Your task to perform on an android device: snooze an email in the gmail app Image 0: 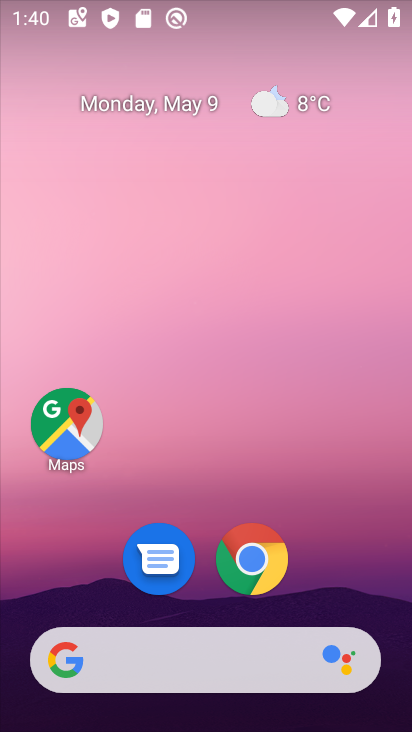
Step 0: drag from (323, 529) to (337, 32)
Your task to perform on an android device: snooze an email in the gmail app Image 1: 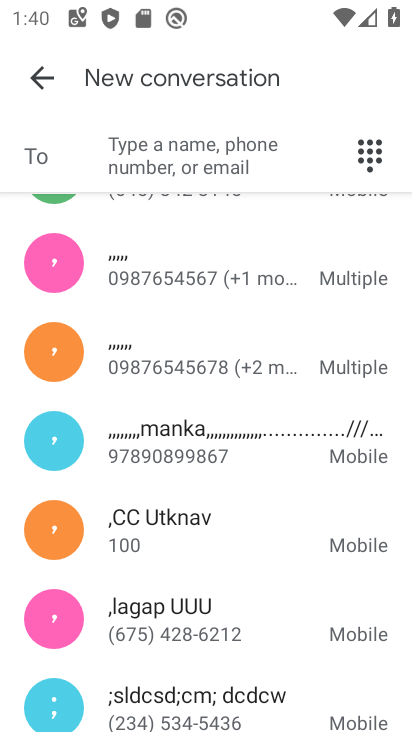
Step 1: press home button
Your task to perform on an android device: snooze an email in the gmail app Image 2: 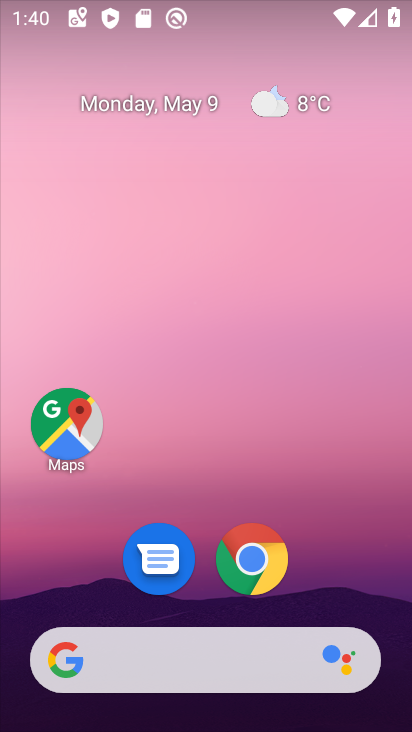
Step 2: drag from (326, 522) to (206, 91)
Your task to perform on an android device: snooze an email in the gmail app Image 3: 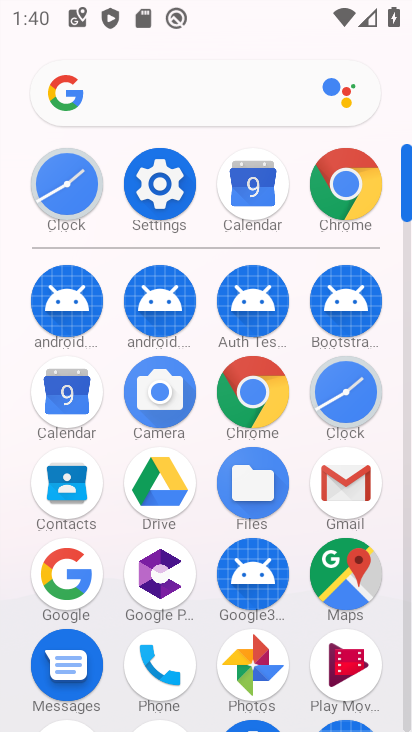
Step 3: click (349, 480)
Your task to perform on an android device: snooze an email in the gmail app Image 4: 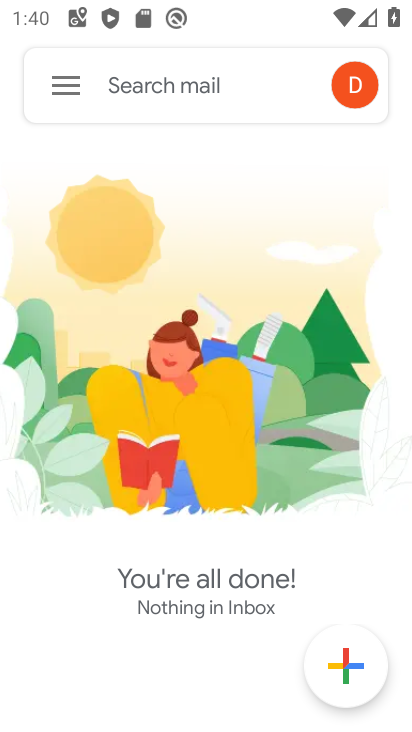
Step 4: click (68, 81)
Your task to perform on an android device: snooze an email in the gmail app Image 5: 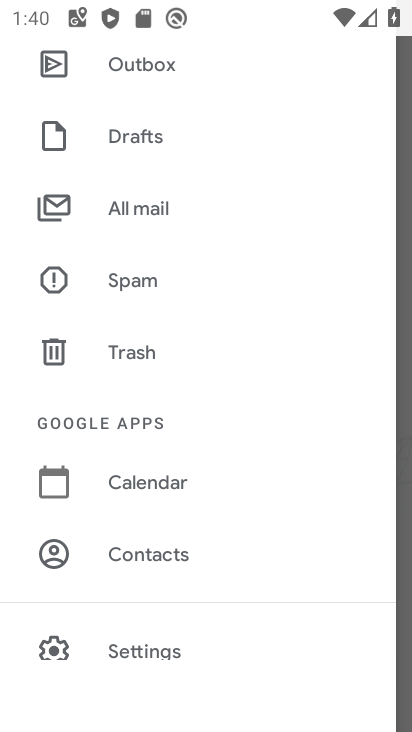
Step 5: drag from (205, 306) to (284, 714)
Your task to perform on an android device: snooze an email in the gmail app Image 6: 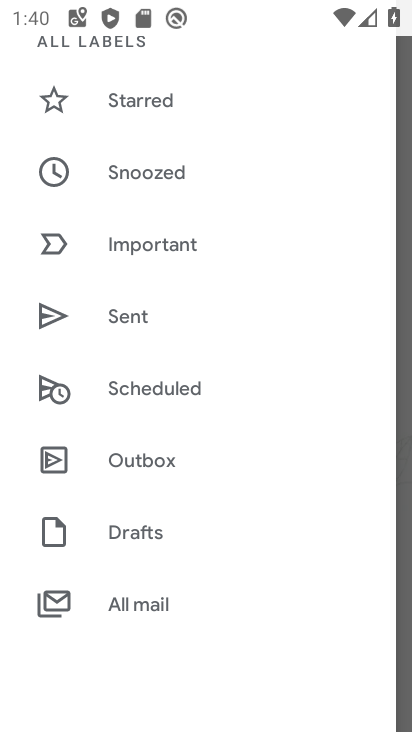
Step 6: click (154, 170)
Your task to perform on an android device: snooze an email in the gmail app Image 7: 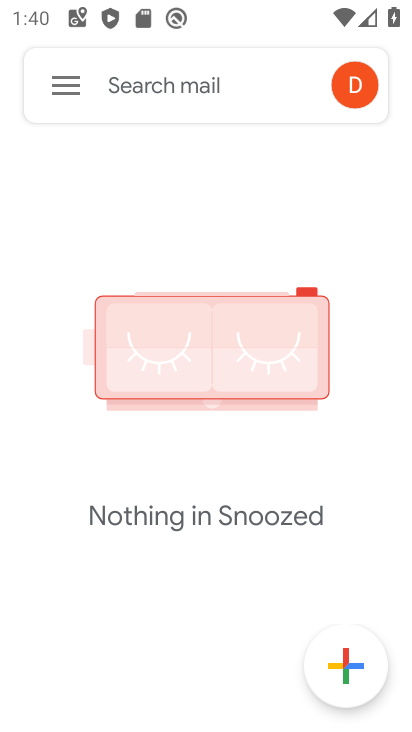
Step 7: task complete